Your task to perform on an android device: Open calendar and show me the fourth week of next month Image 0: 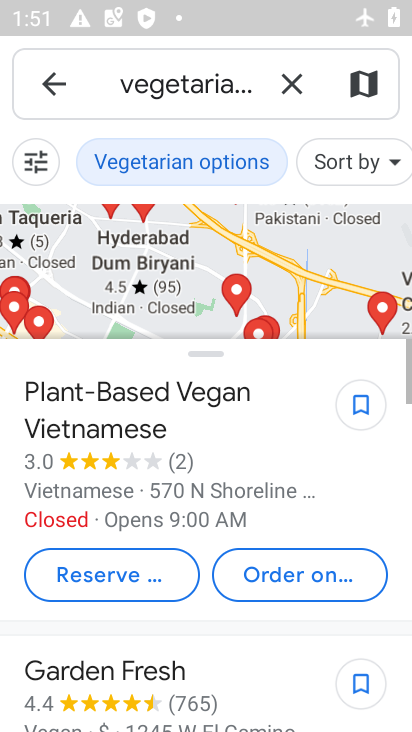
Step 0: drag from (211, 601) to (240, 349)
Your task to perform on an android device: Open calendar and show me the fourth week of next month Image 1: 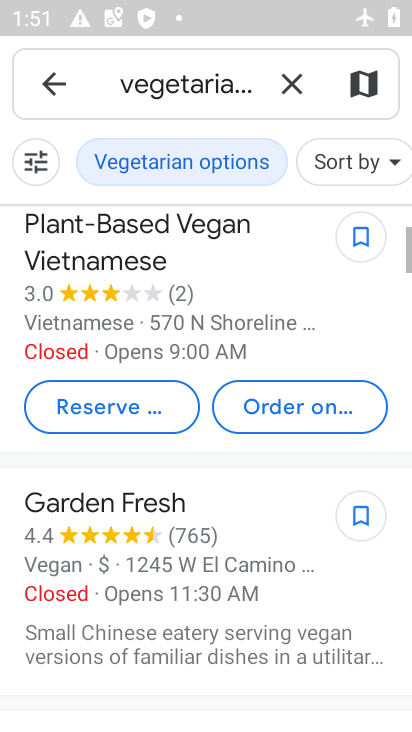
Step 1: press home button
Your task to perform on an android device: Open calendar and show me the fourth week of next month Image 2: 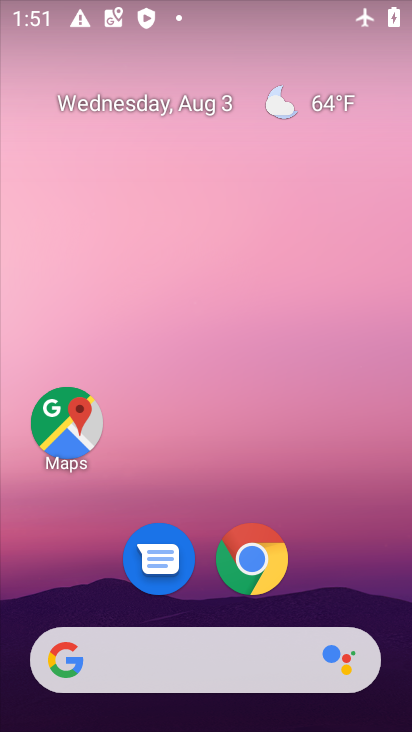
Step 2: drag from (205, 501) to (215, 21)
Your task to perform on an android device: Open calendar and show me the fourth week of next month Image 3: 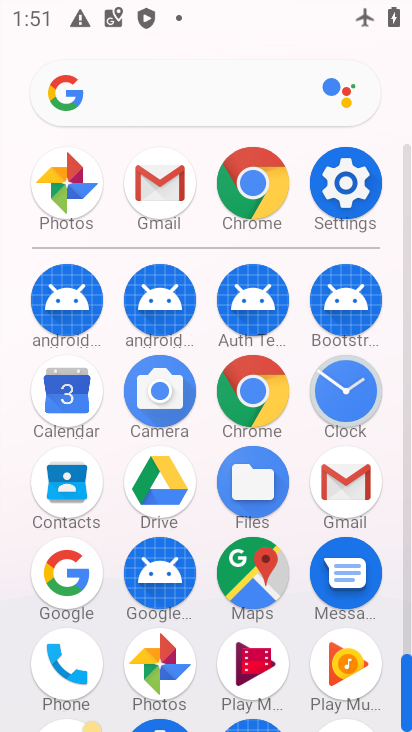
Step 3: click (67, 391)
Your task to perform on an android device: Open calendar and show me the fourth week of next month Image 4: 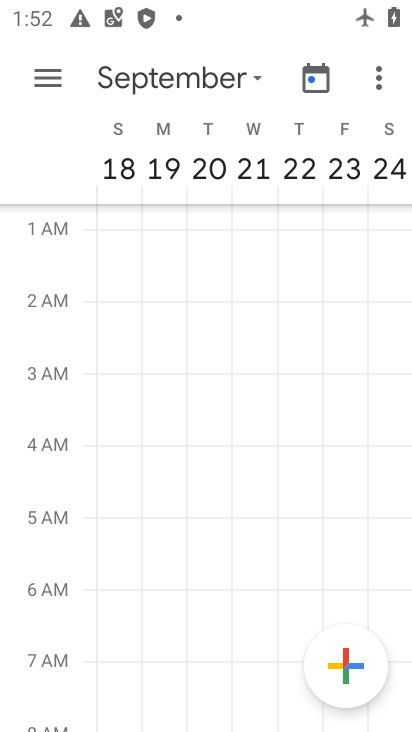
Step 4: task complete